Your task to perform on an android device: Open calendar and show me the third week of next month Image 0: 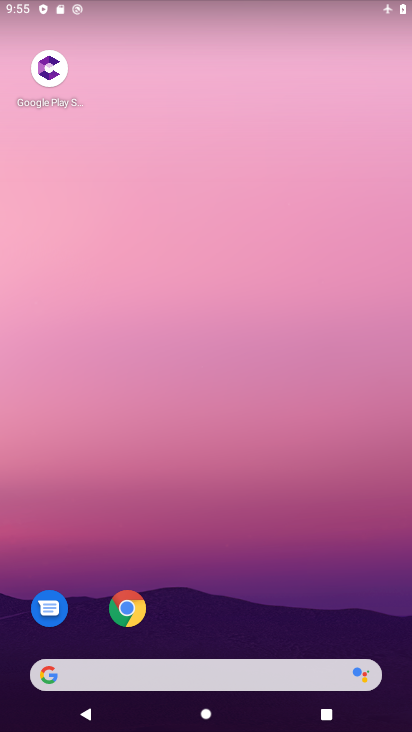
Step 0: drag from (224, 635) to (279, 0)
Your task to perform on an android device: Open calendar and show me the third week of next month Image 1: 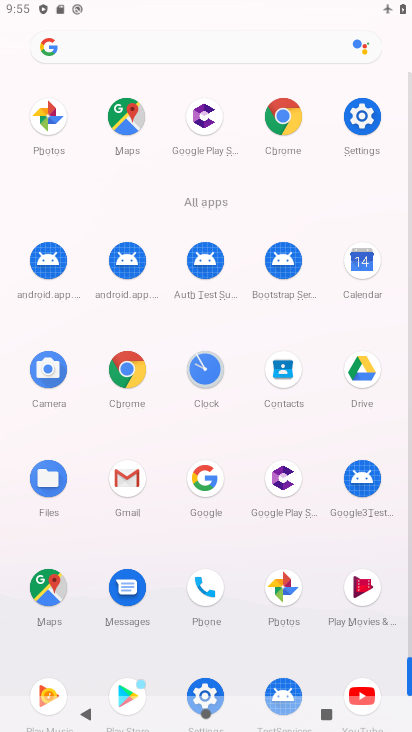
Step 1: click (363, 268)
Your task to perform on an android device: Open calendar and show me the third week of next month Image 2: 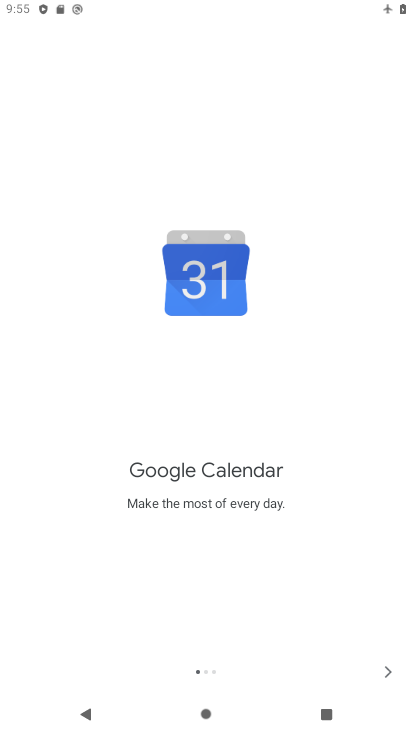
Step 2: click (386, 668)
Your task to perform on an android device: Open calendar and show me the third week of next month Image 3: 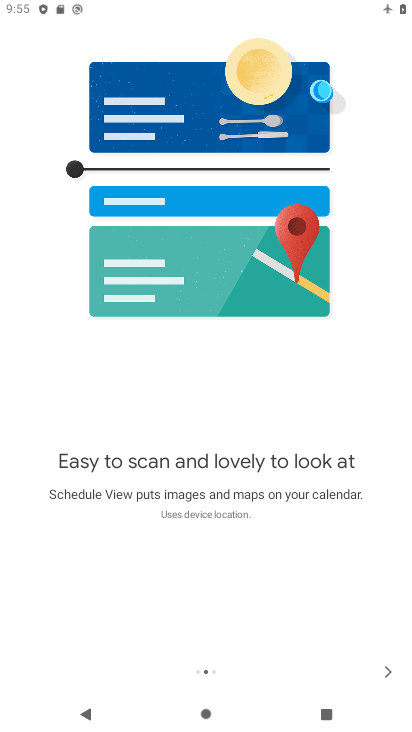
Step 3: click (380, 671)
Your task to perform on an android device: Open calendar and show me the third week of next month Image 4: 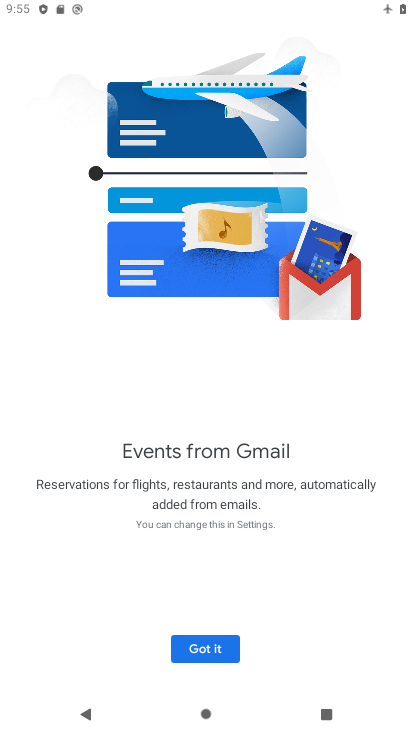
Step 4: click (199, 647)
Your task to perform on an android device: Open calendar and show me the third week of next month Image 5: 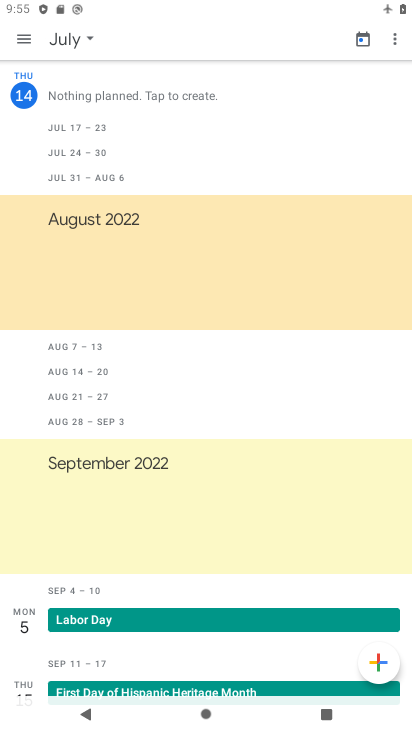
Step 5: click (32, 43)
Your task to perform on an android device: Open calendar and show me the third week of next month Image 6: 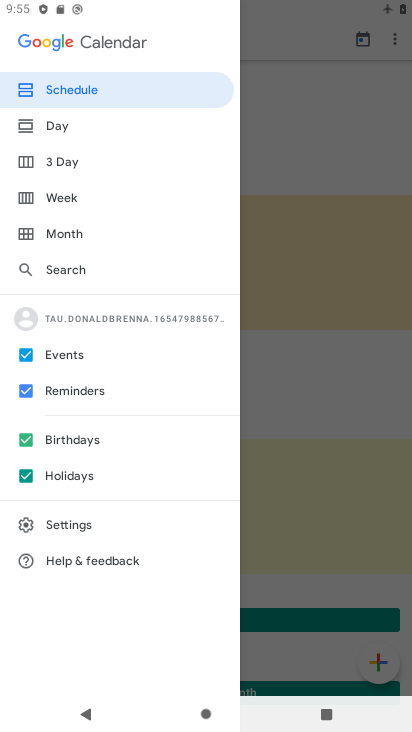
Step 6: click (72, 194)
Your task to perform on an android device: Open calendar and show me the third week of next month Image 7: 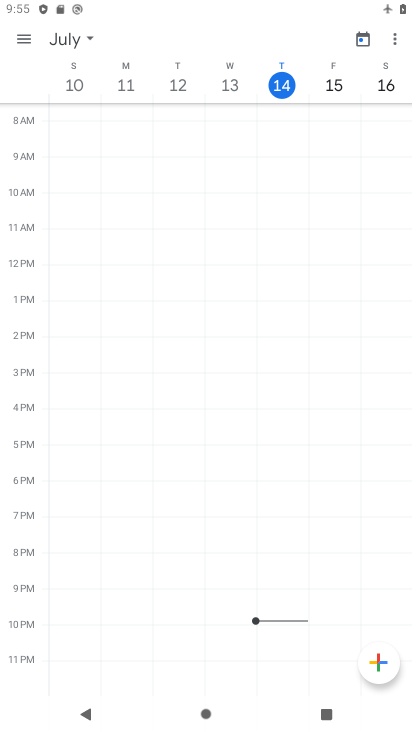
Step 7: task complete